Your task to perform on an android device: Open Amazon Image 0: 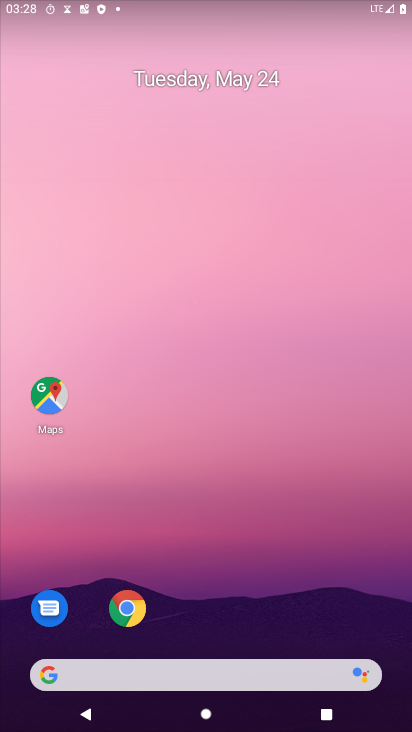
Step 0: click (120, 618)
Your task to perform on an android device: Open Amazon Image 1: 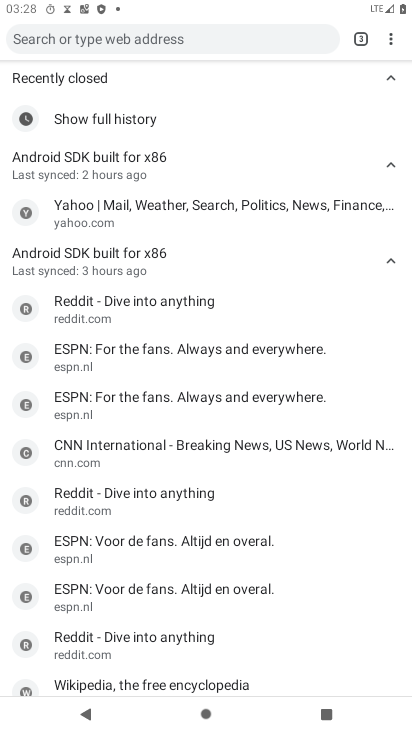
Step 1: click (356, 43)
Your task to perform on an android device: Open Amazon Image 2: 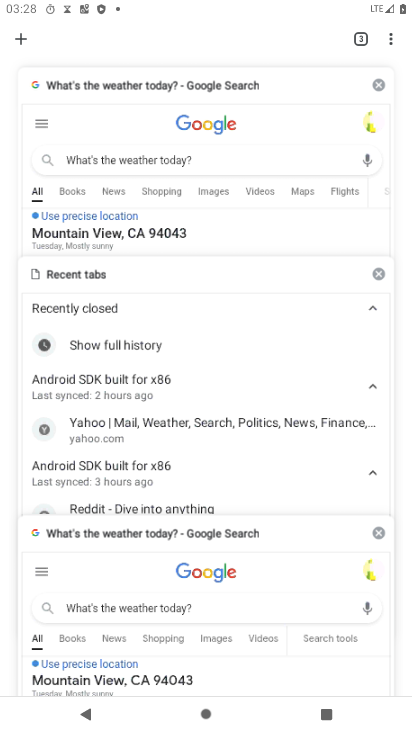
Step 2: click (25, 45)
Your task to perform on an android device: Open Amazon Image 3: 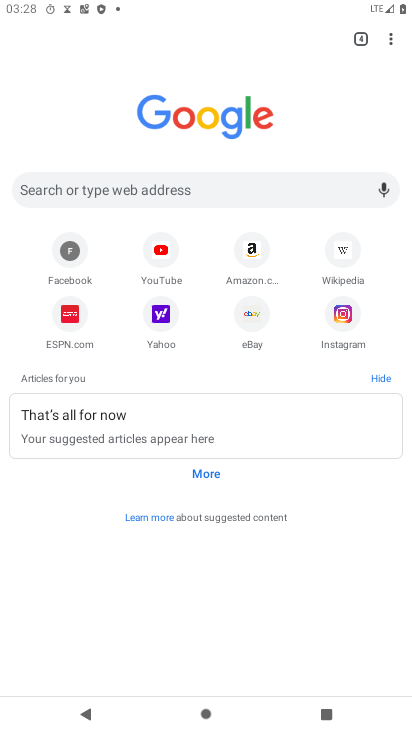
Step 3: click (261, 251)
Your task to perform on an android device: Open Amazon Image 4: 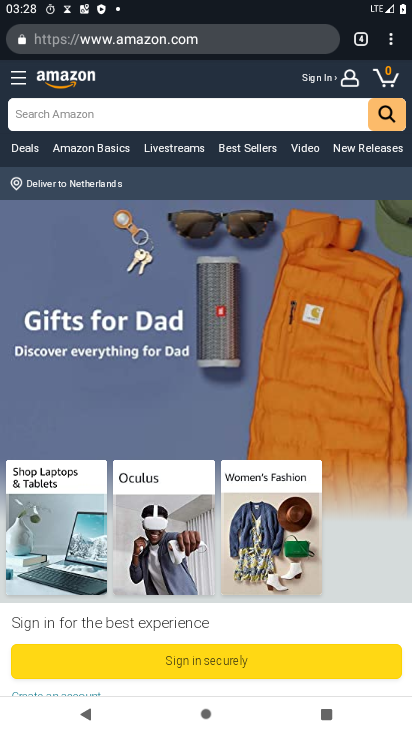
Step 4: task complete